Your task to perform on an android device: What's a good restaurant in Philadelphia? Image 0: 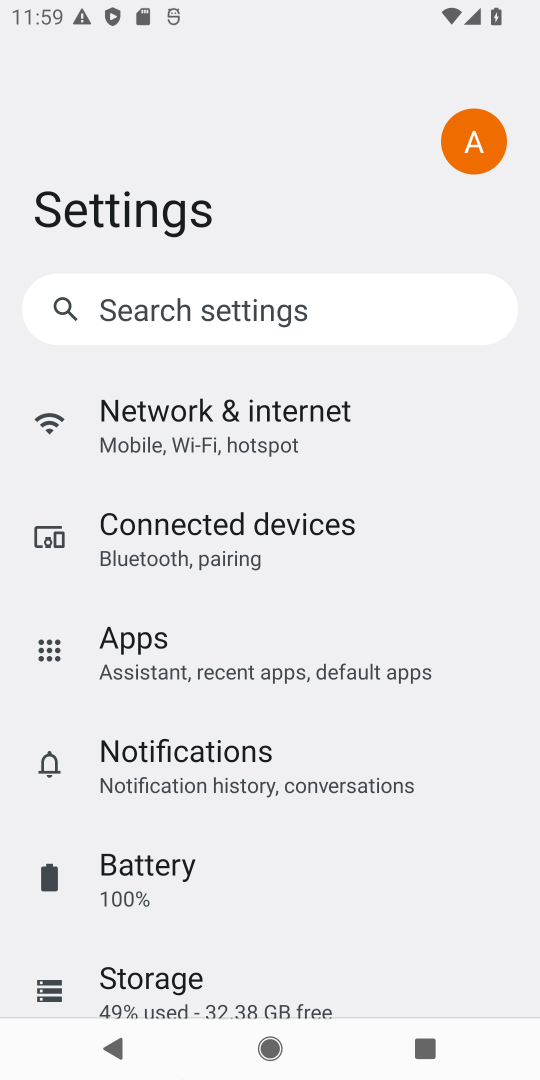
Step 0: press home button
Your task to perform on an android device: What's a good restaurant in Philadelphia? Image 1: 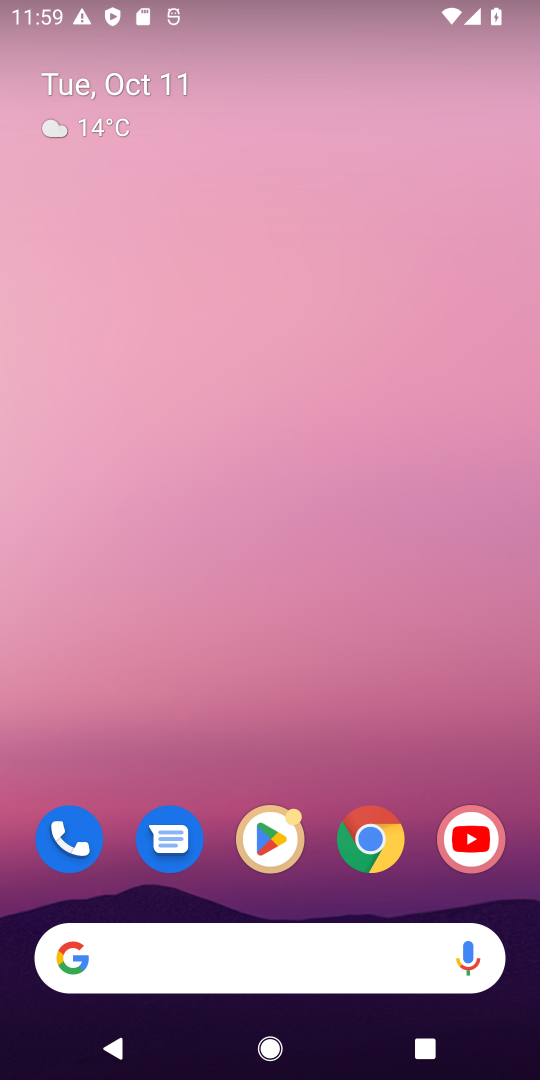
Step 1: click (358, 835)
Your task to perform on an android device: What's a good restaurant in Philadelphia? Image 2: 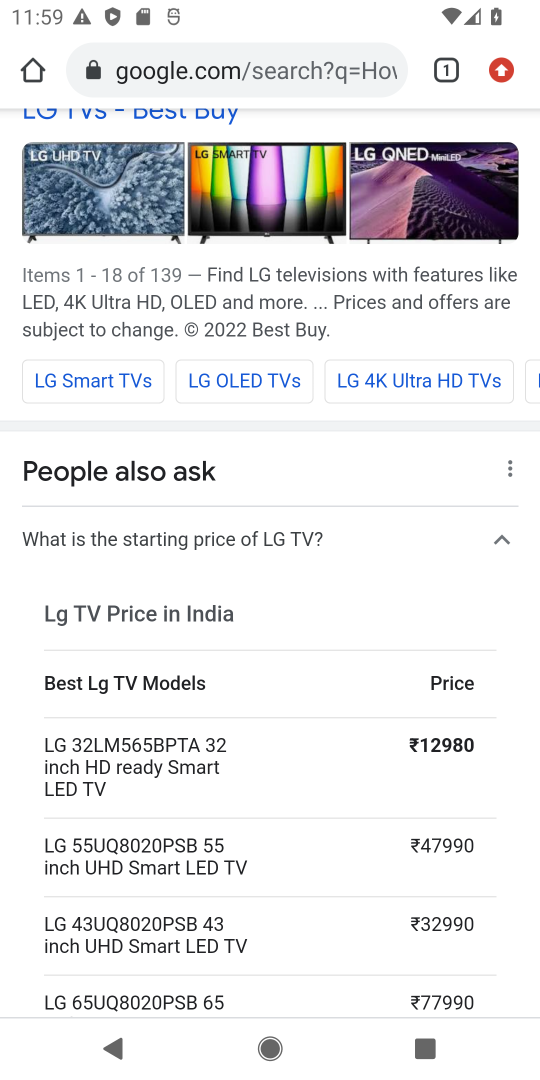
Step 2: click (154, 52)
Your task to perform on an android device: What's a good restaurant in Philadelphia? Image 3: 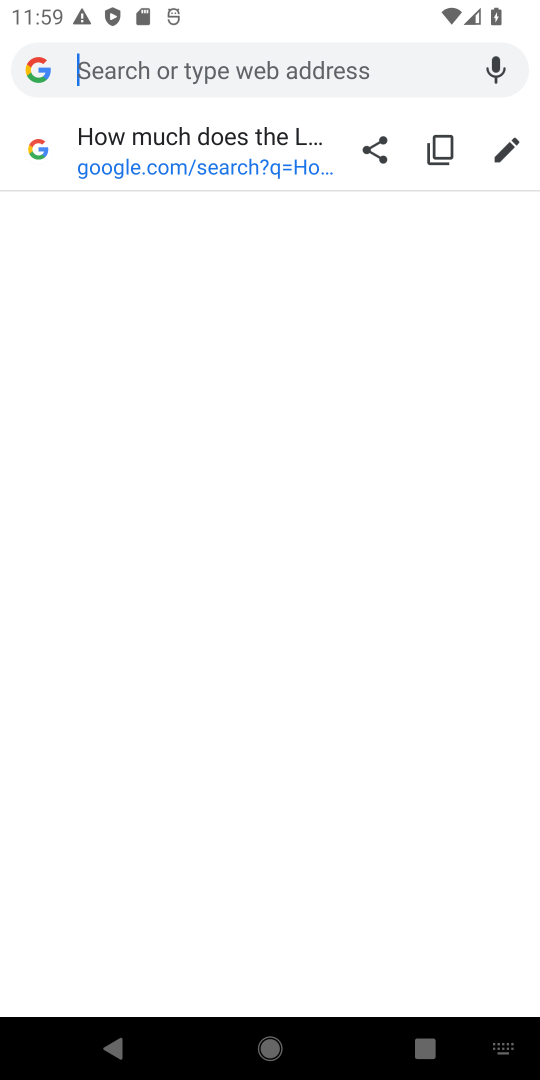
Step 3: type "What's a good restaurant in Philadelphia?"
Your task to perform on an android device: What's a good restaurant in Philadelphia? Image 4: 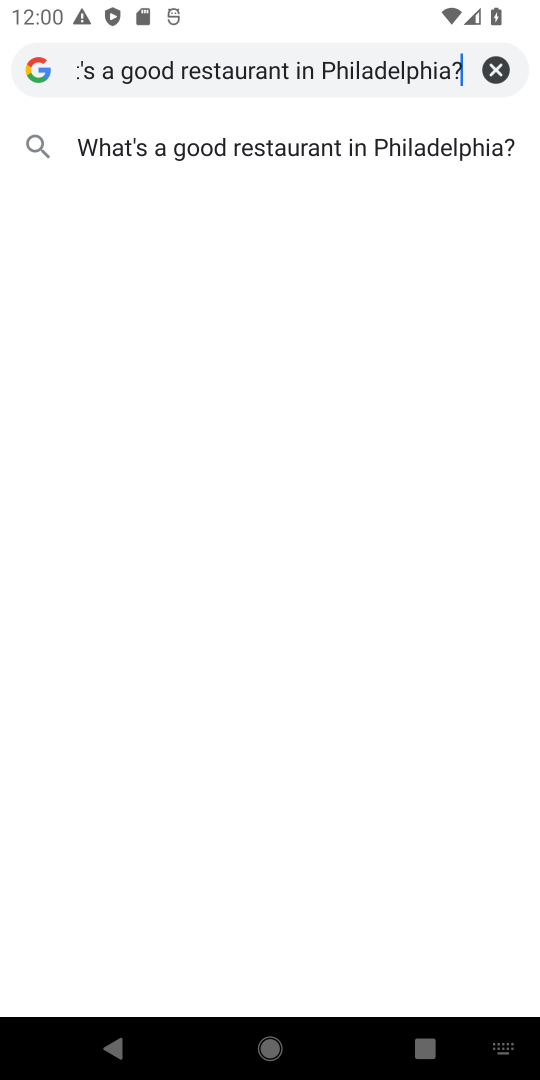
Step 4: click (425, 141)
Your task to perform on an android device: What's a good restaurant in Philadelphia? Image 5: 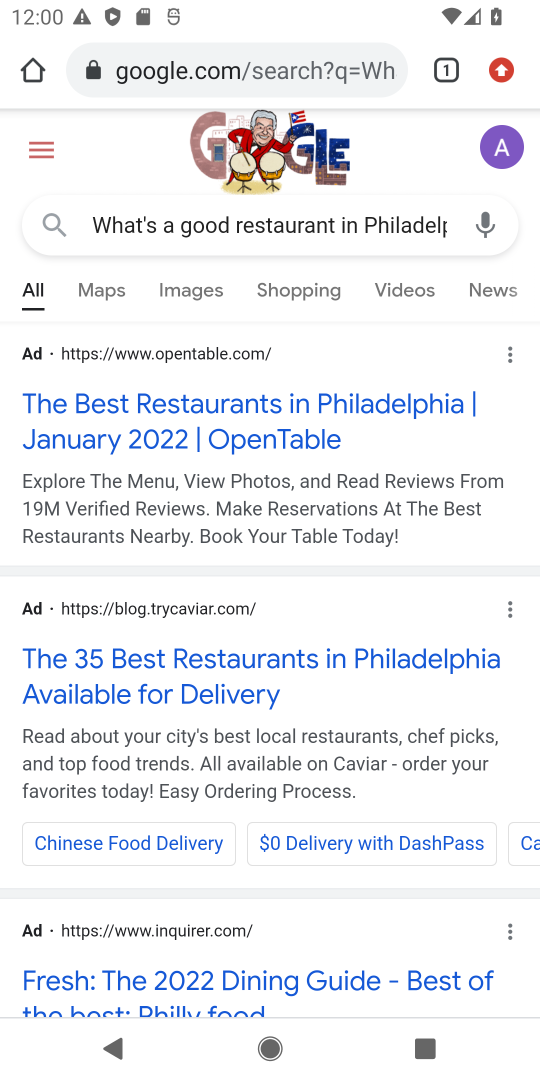
Step 5: task complete